Your task to perform on an android device: Open accessibility settings Image 0: 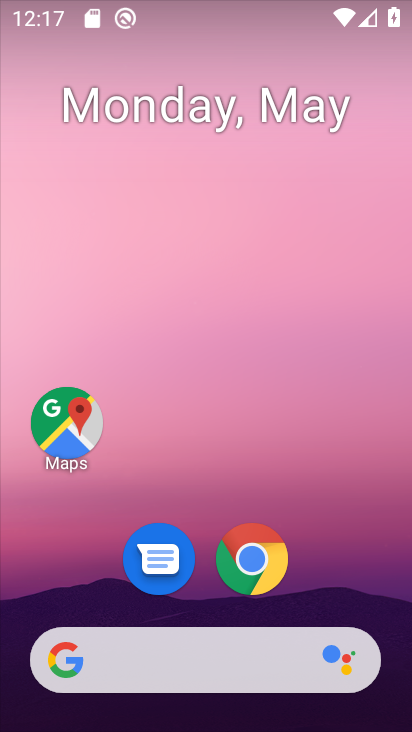
Step 0: drag from (87, 649) to (183, 110)
Your task to perform on an android device: Open accessibility settings Image 1: 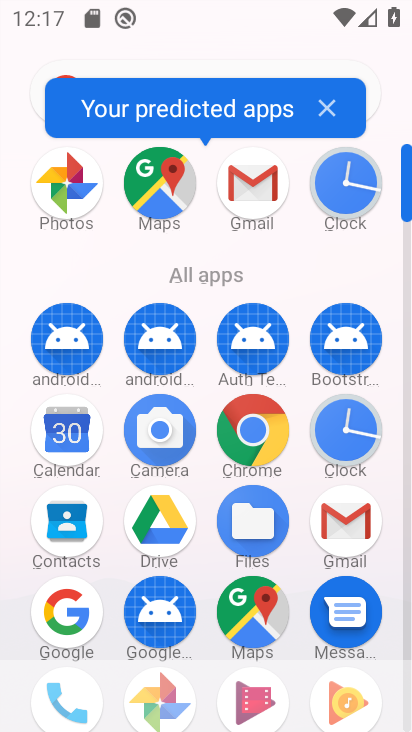
Step 1: drag from (176, 584) to (285, 176)
Your task to perform on an android device: Open accessibility settings Image 2: 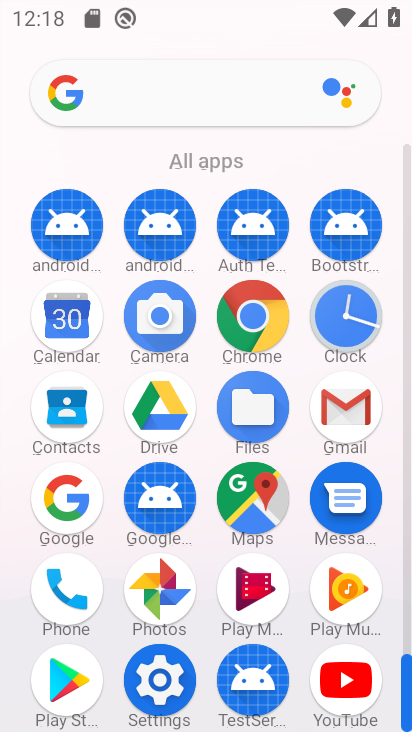
Step 2: click (162, 685)
Your task to perform on an android device: Open accessibility settings Image 3: 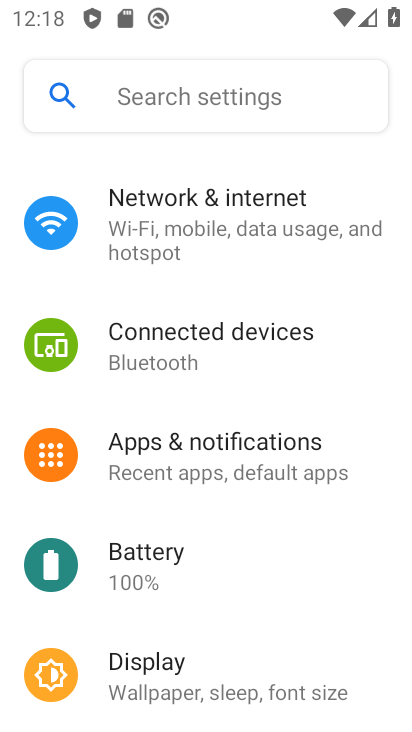
Step 3: drag from (187, 670) to (284, 186)
Your task to perform on an android device: Open accessibility settings Image 4: 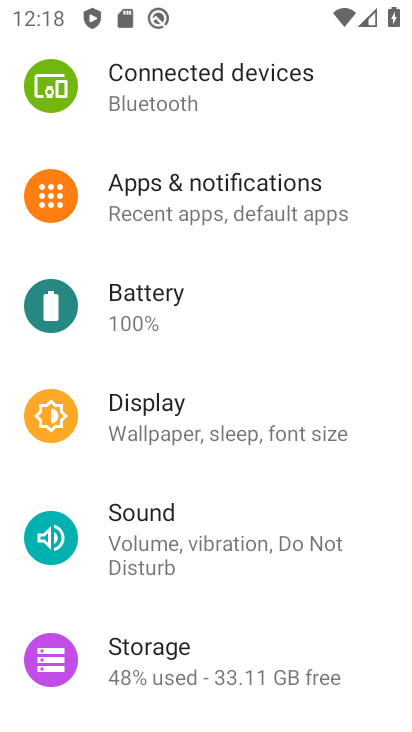
Step 4: drag from (241, 583) to (354, 111)
Your task to perform on an android device: Open accessibility settings Image 5: 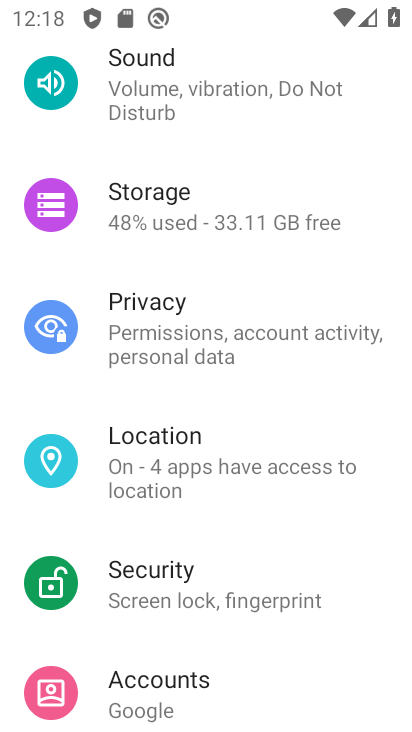
Step 5: drag from (216, 566) to (315, 112)
Your task to perform on an android device: Open accessibility settings Image 6: 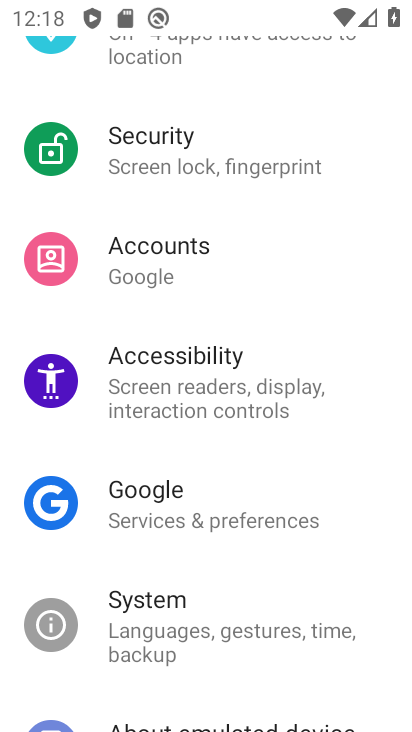
Step 6: click (256, 418)
Your task to perform on an android device: Open accessibility settings Image 7: 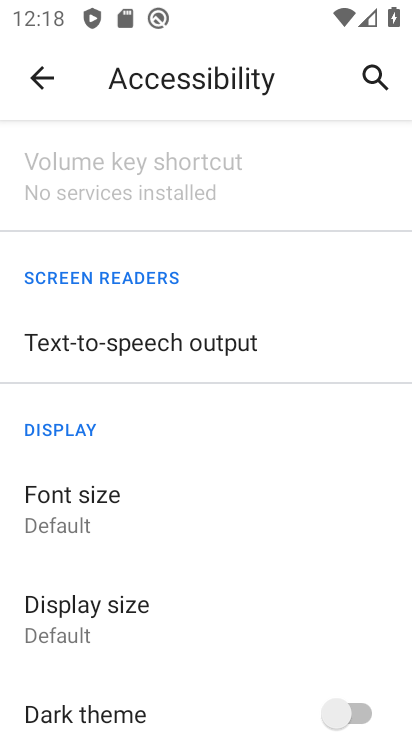
Step 7: task complete